Your task to perform on an android device: turn off airplane mode Image 0: 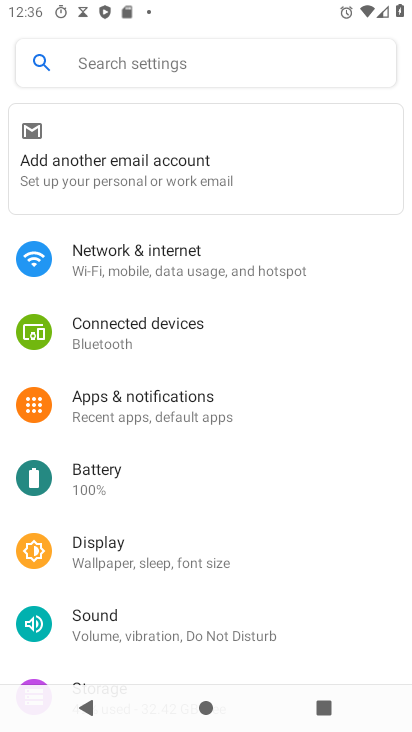
Step 0: press home button
Your task to perform on an android device: turn off airplane mode Image 1: 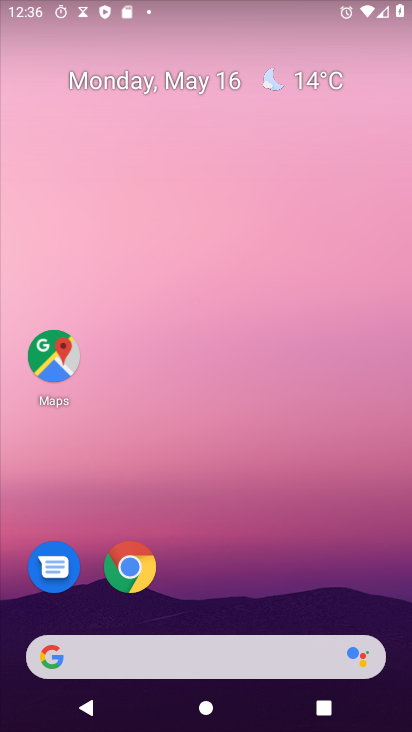
Step 1: drag from (209, 617) to (266, 63)
Your task to perform on an android device: turn off airplane mode Image 2: 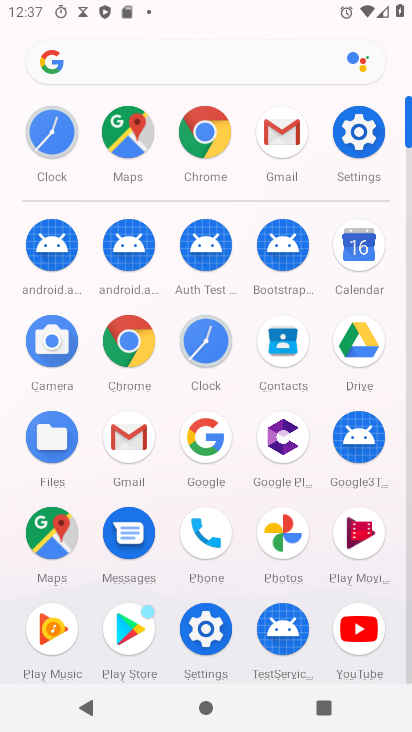
Step 2: click (357, 129)
Your task to perform on an android device: turn off airplane mode Image 3: 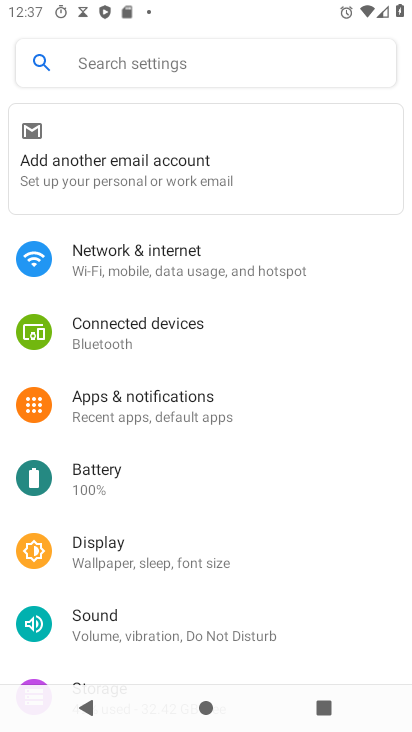
Step 3: click (125, 268)
Your task to perform on an android device: turn off airplane mode Image 4: 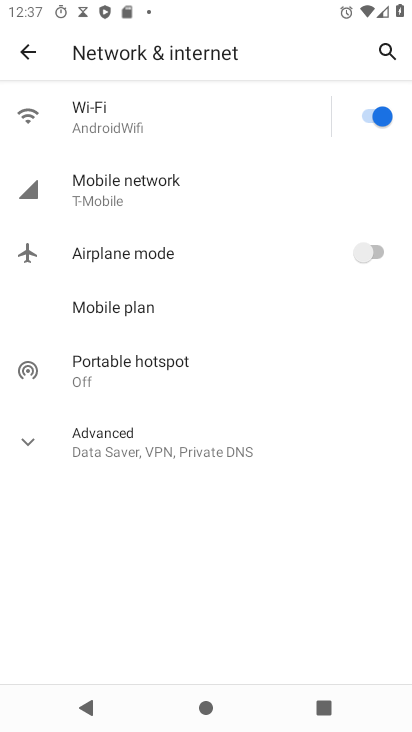
Step 4: task complete